Your task to perform on an android device: Google the capital of Mexico Image 0: 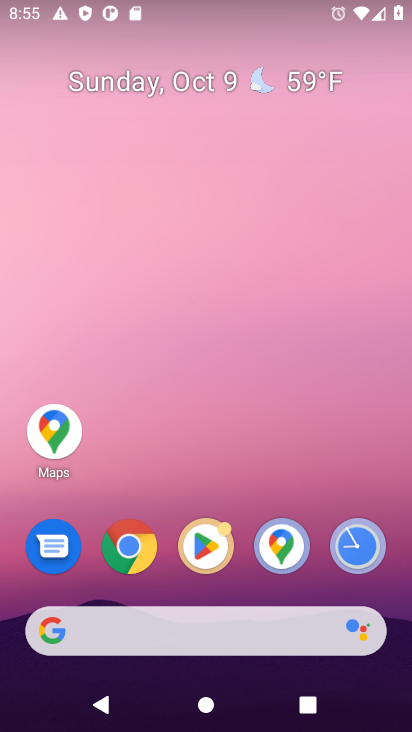
Step 0: click (145, 654)
Your task to perform on an android device: Google the capital of Mexico Image 1: 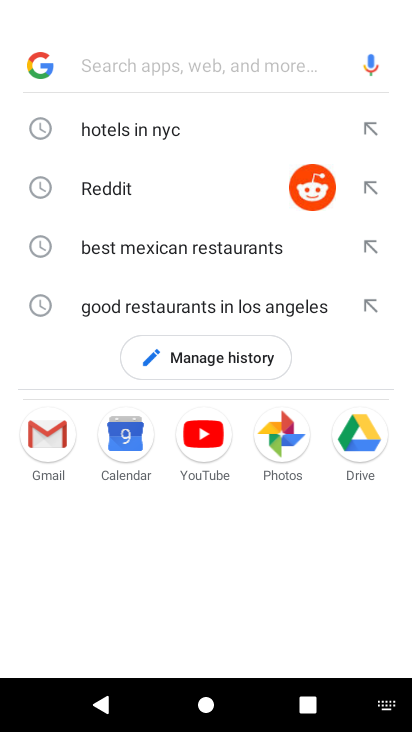
Step 1: type "capital of mexico"
Your task to perform on an android device: Google the capital of Mexico Image 2: 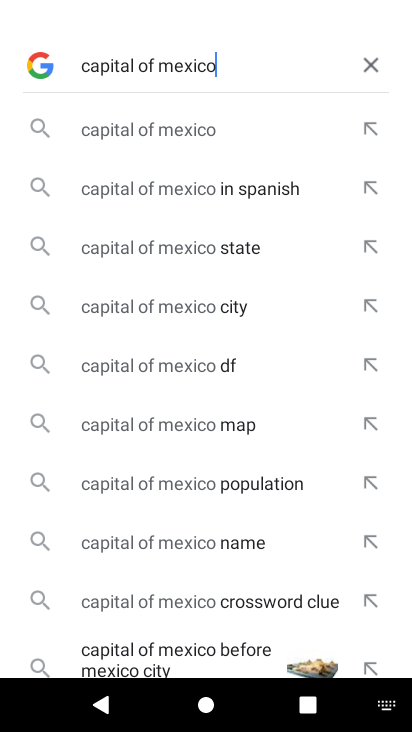
Step 2: type ""
Your task to perform on an android device: Google the capital of Mexico Image 3: 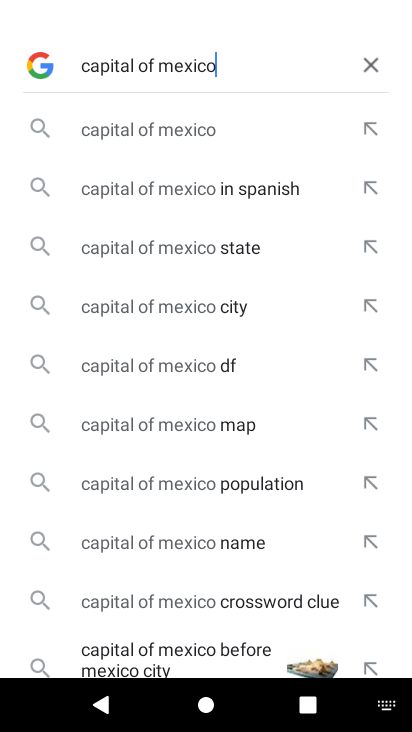
Step 3: press enter
Your task to perform on an android device: Google the capital of Mexico Image 4: 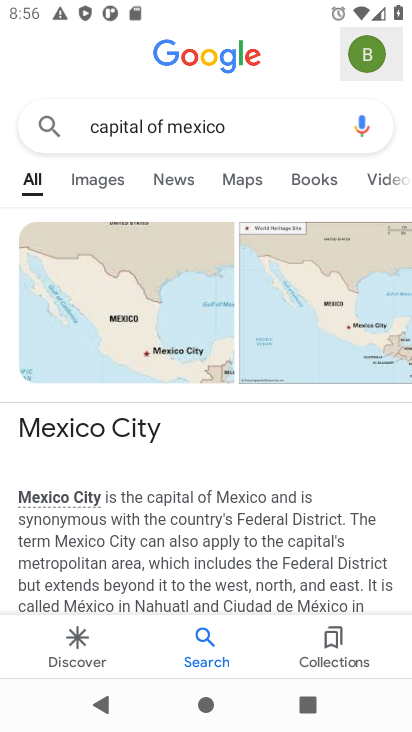
Step 4: task complete